Your task to perform on an android device: read, delete, or share a saved page in the chrome app Image 0: 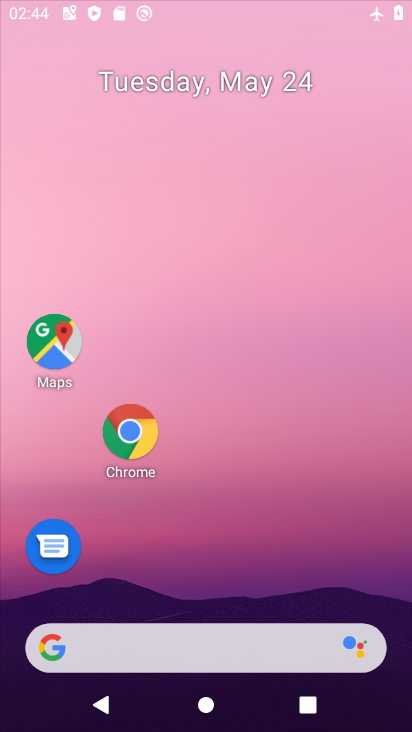
Step 0: drag from (204, 575) to (271, 162)
Your task to perform on an android device: read, delete, or share a saved page in the chrome app Image 1: 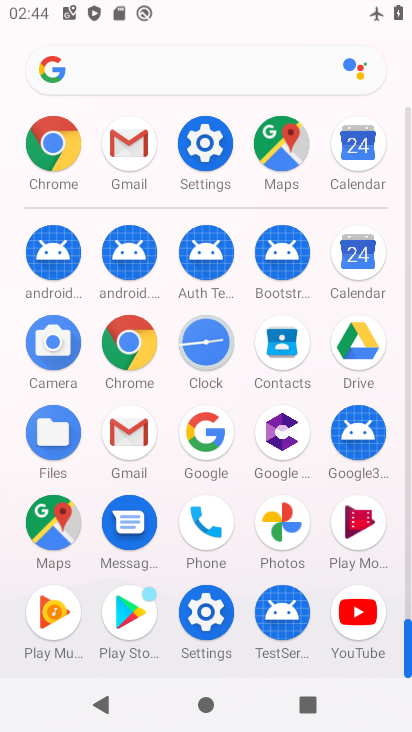
Step 1: click (133, 342)
Your task to perform on an android device: read, delete, or share a saved page in the chrome app Image 2: 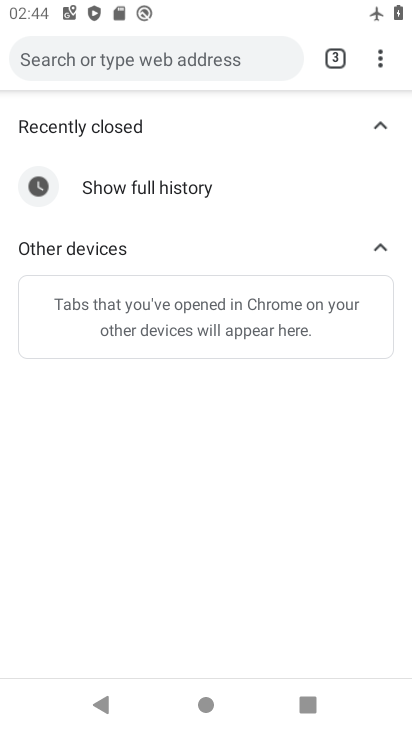
Step 2: click (380, 62)
Your task to perform on an android device: read, delete, or share a saved page in the chrome app Image 3: 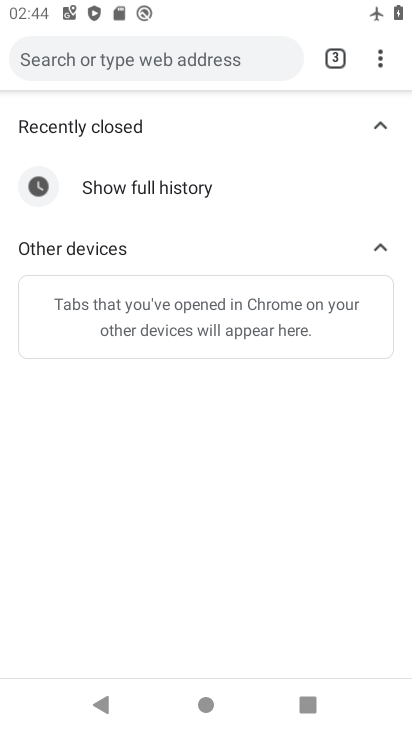
Step 3: click (383, 56)
Your task to perform on an android device: read, delete, or share a saved page in the chrome app Image 4: 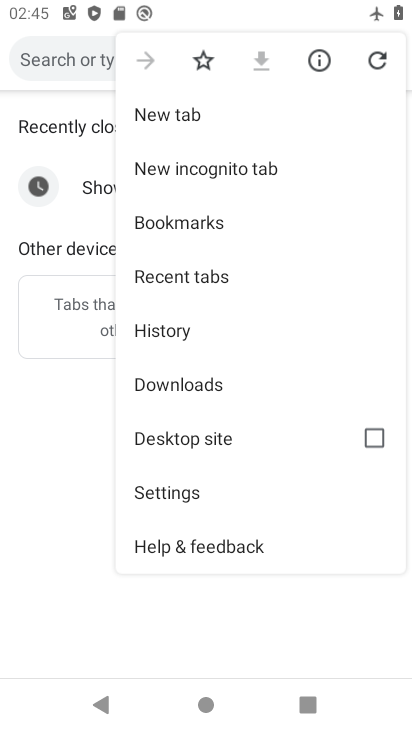
Step 4: click (245, 218)
Your task to perform on an android device: read, delete, or share a saved page in the chrome app Image 5: 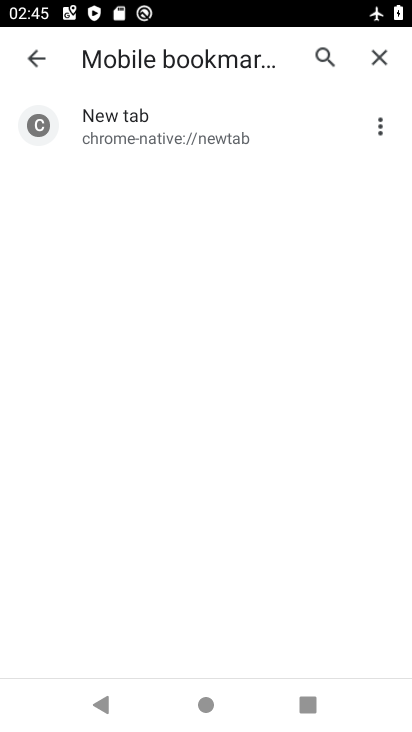
Step 5: task complete